Your task to perform on an android device: Open Android settings Image 0: 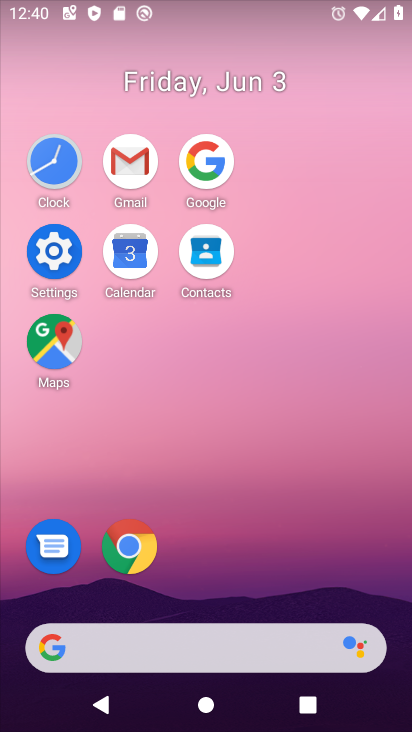
Step 0: click (76, 248)
Your task to perform on an android device: Open Android settings Image 1: 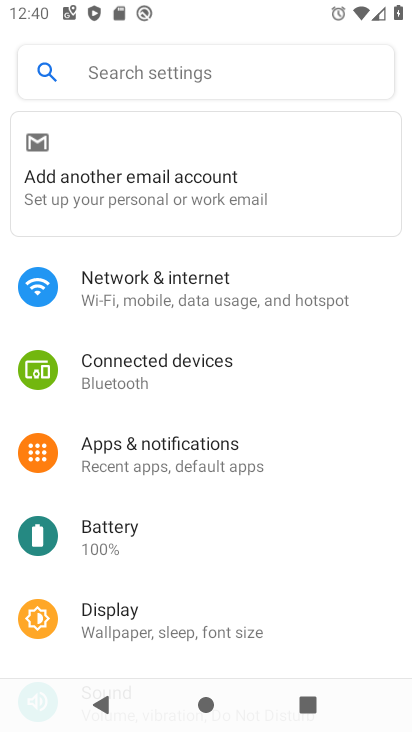
Step 1: task complete